Your task to perform on an android device: refresh tabs in the chrome app Image 0: 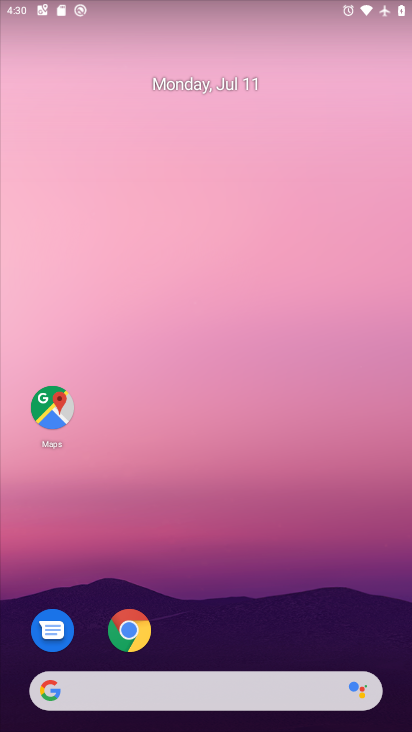
Step 0: click (143, 618)
Your task to perform on an android device: refresh tabs in the chrome app Image 1: 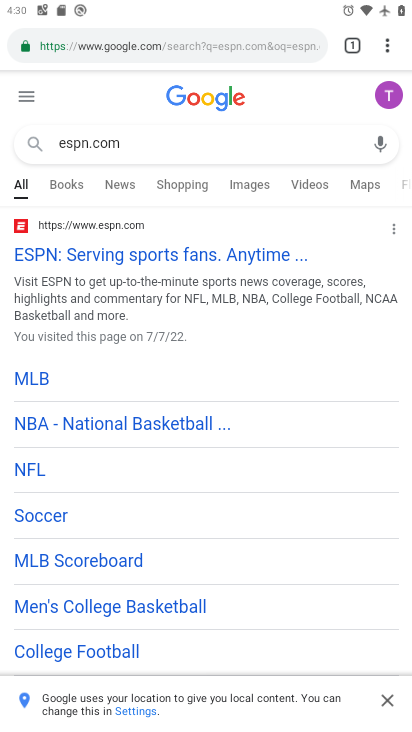
Step 1: click (381, 50)
Your task to perform on an android device: refresh tabs in the chrome app Image 2: 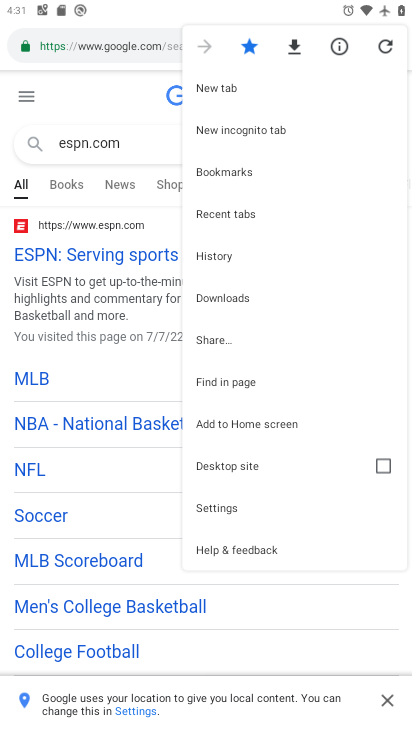
Step 2: click (372, 48)
Your task to perform on an android device: refresh tabs in the chrome app Image 3: 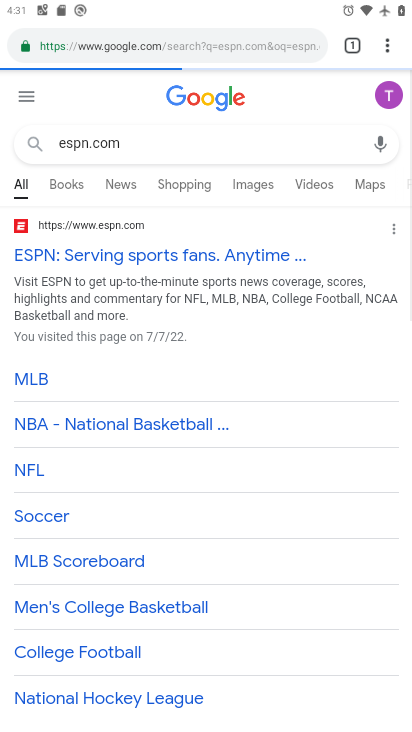
Step 3: task complete